Your task to perform on an android device: Go to Reddit.com Image 0: 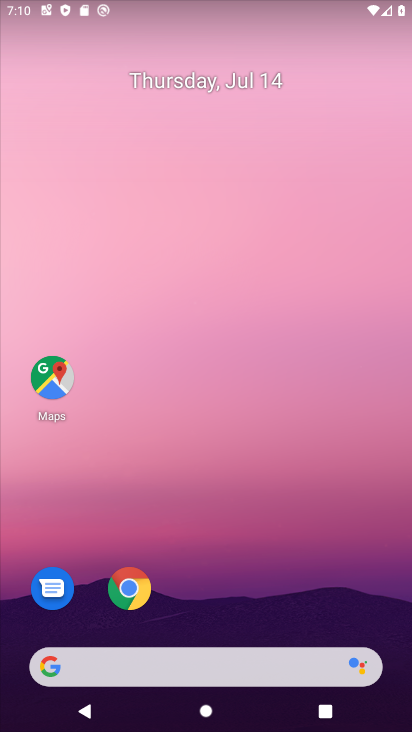
Step 0: drag from (401, 630) to (328, 3)
Your task to perform on an android device: Go to Reddit.com Image 1: 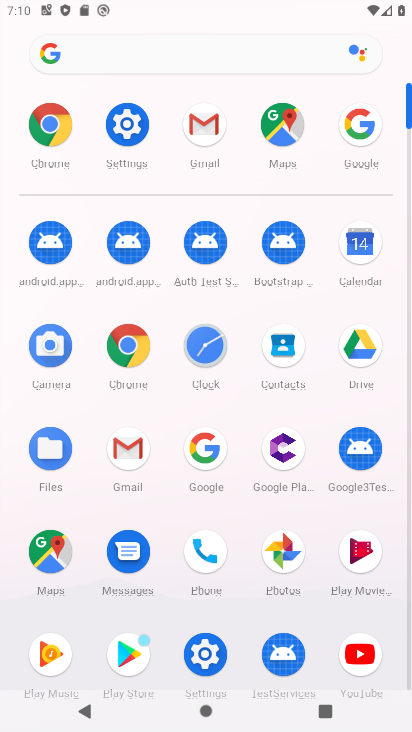
Step 1: click (198, 461)
Your task to perform on an android device: Go to Reddit.com Image 2: 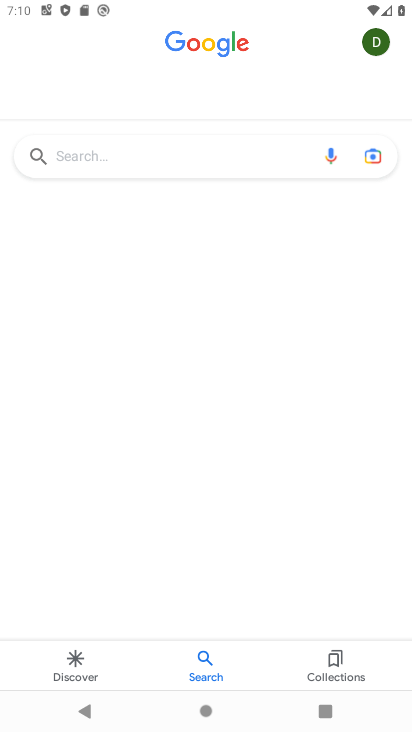
Step 2: click (99, 155)
Your task to perform on an android device: Go to Reddit.com Image 3: 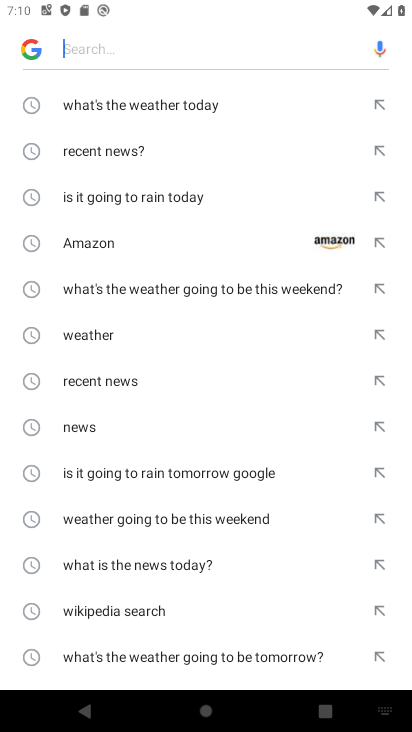
Step 3: drag from (135, 578) to (201, 129)
Your task to perform on an android device: Go to Reddit.com Image 4: 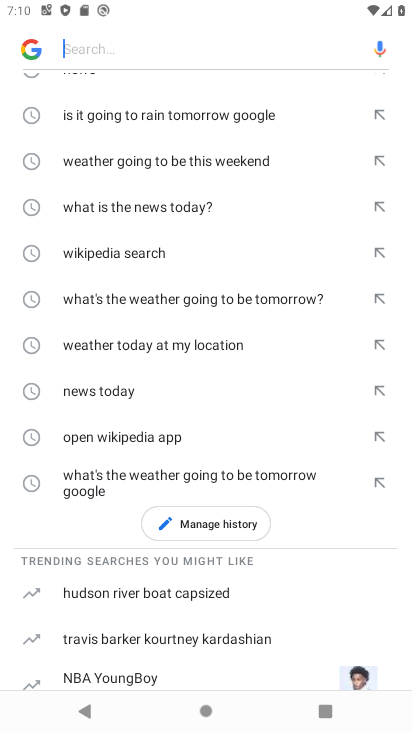
Step 4: drag from (170, 65) to (123, 620)
Your task to perform on an android device: Go to Reddit.com Image 5: 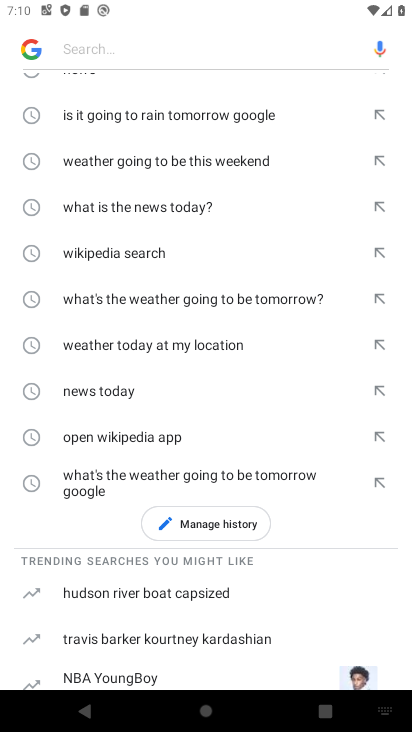
Step 5: type "Reddit.com"
Your task to perform on an android device: Go to Reddit.com Image 6: 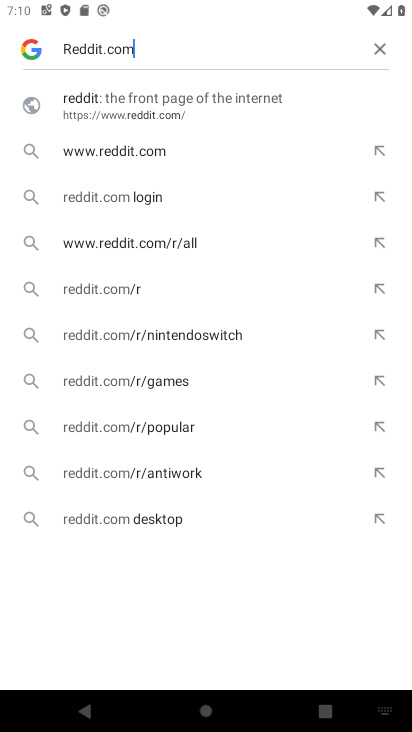
Step 6: click (105, 100)
Your task to perform on an android device: Go to Reddit.com Image 7: 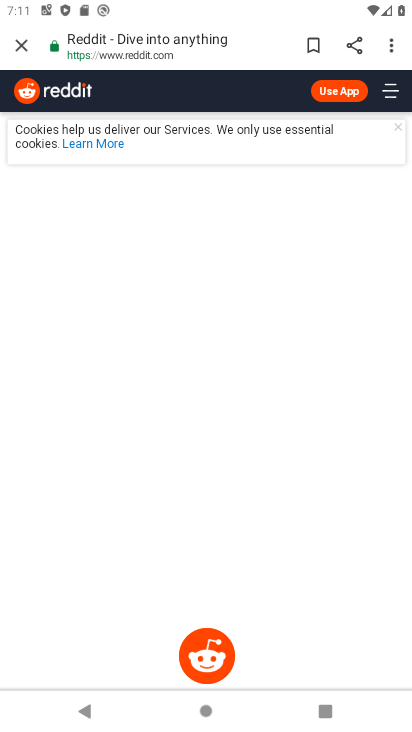
Step 7: task complete